Your task to perform on an android device: Open battery settings Image 0: 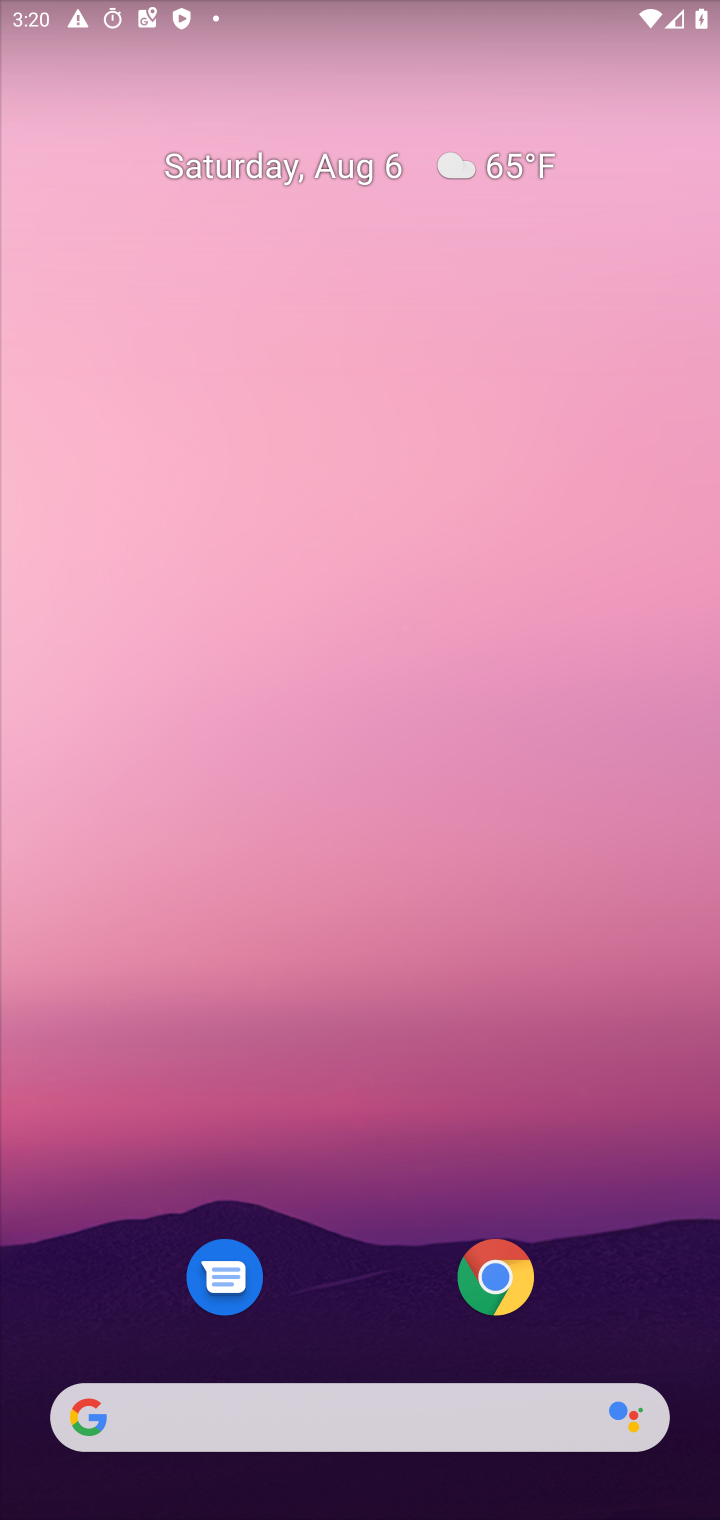
Step 0: drag from (575, 1385) to (377, 15)
Your task to perform on an android device: Open battery settings Image 1: 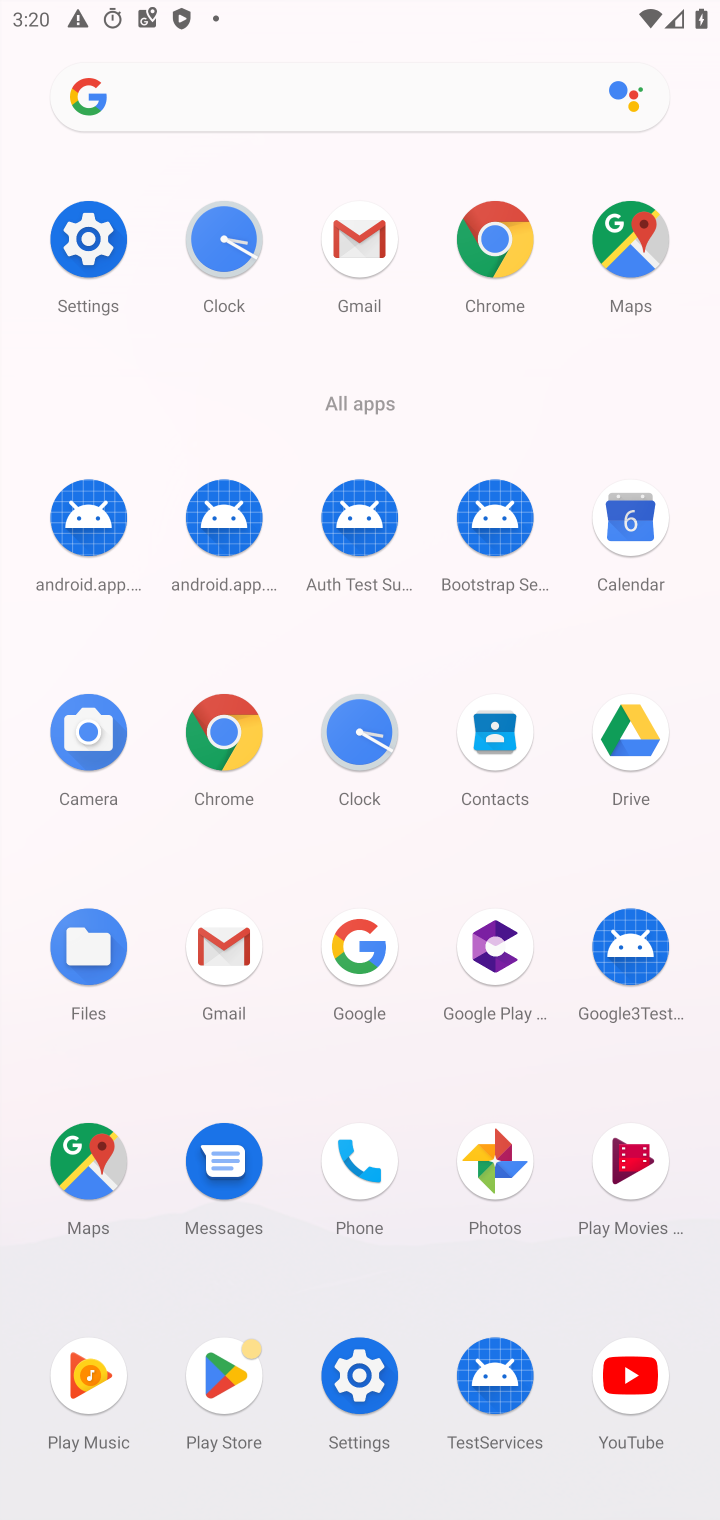
Step 1: click (337, 1370)
Your task to perform on an android device: Open battery settings Image 2: 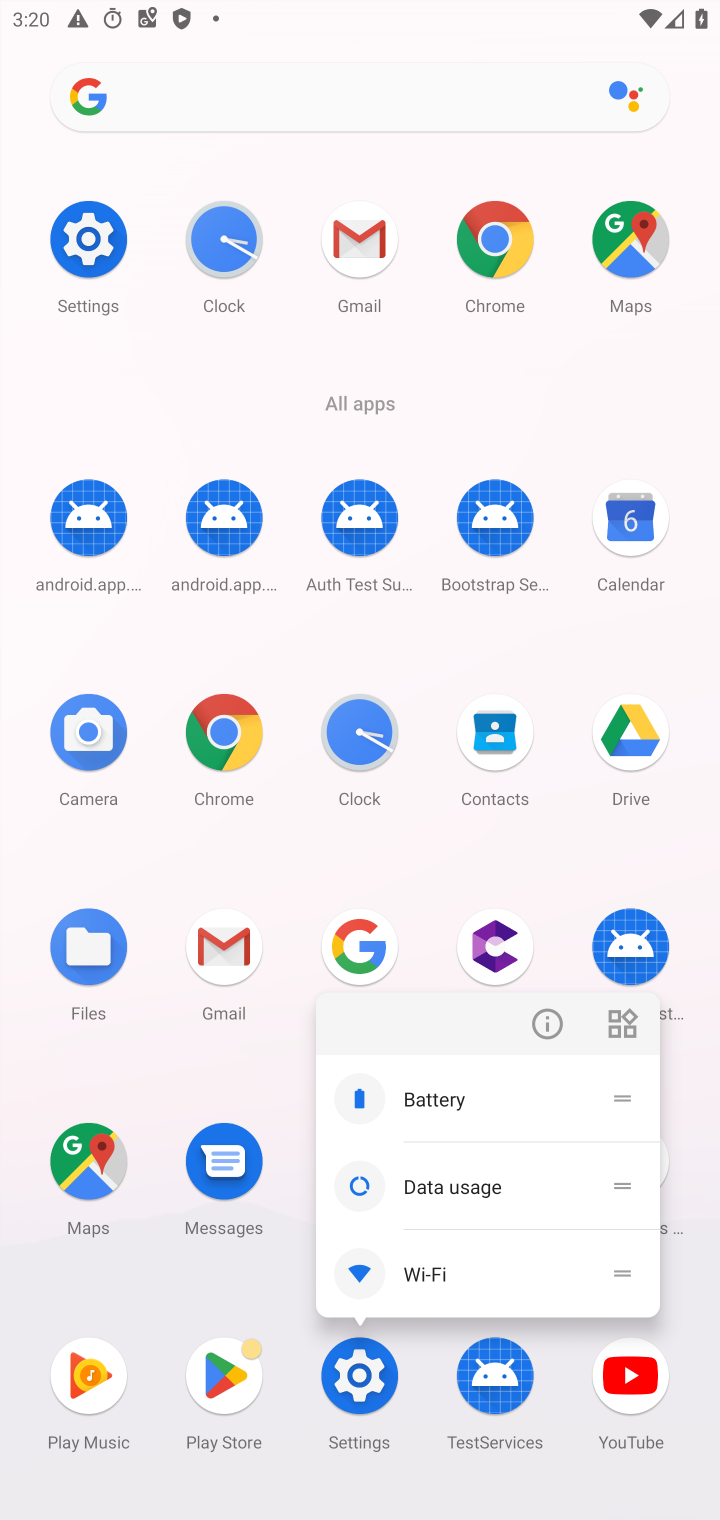
Step 2: click (337, 1370)
Your task to perform on an android device: Open battery settings Image 3: 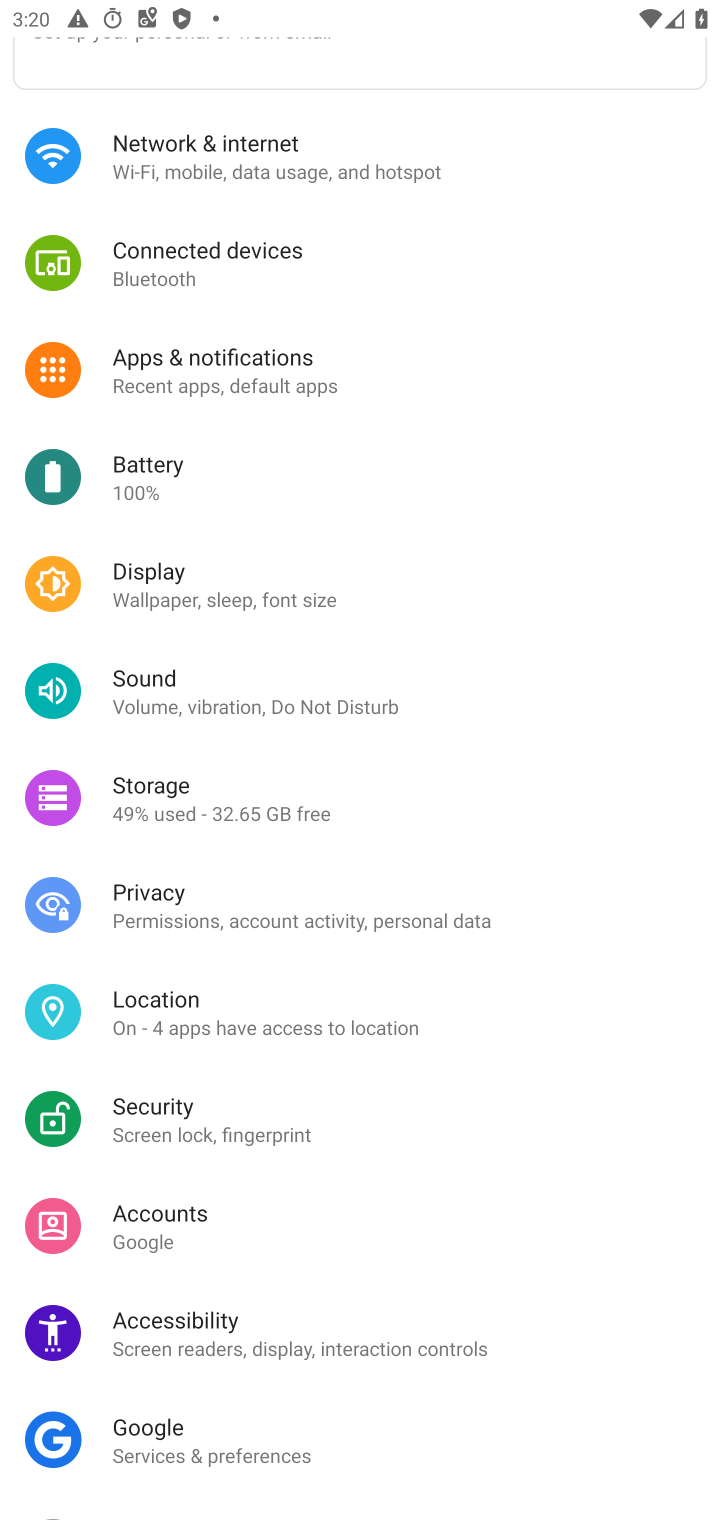
Step 3: click (169, 473)
Your task to perform on an android device: Open battery settings Image 4: 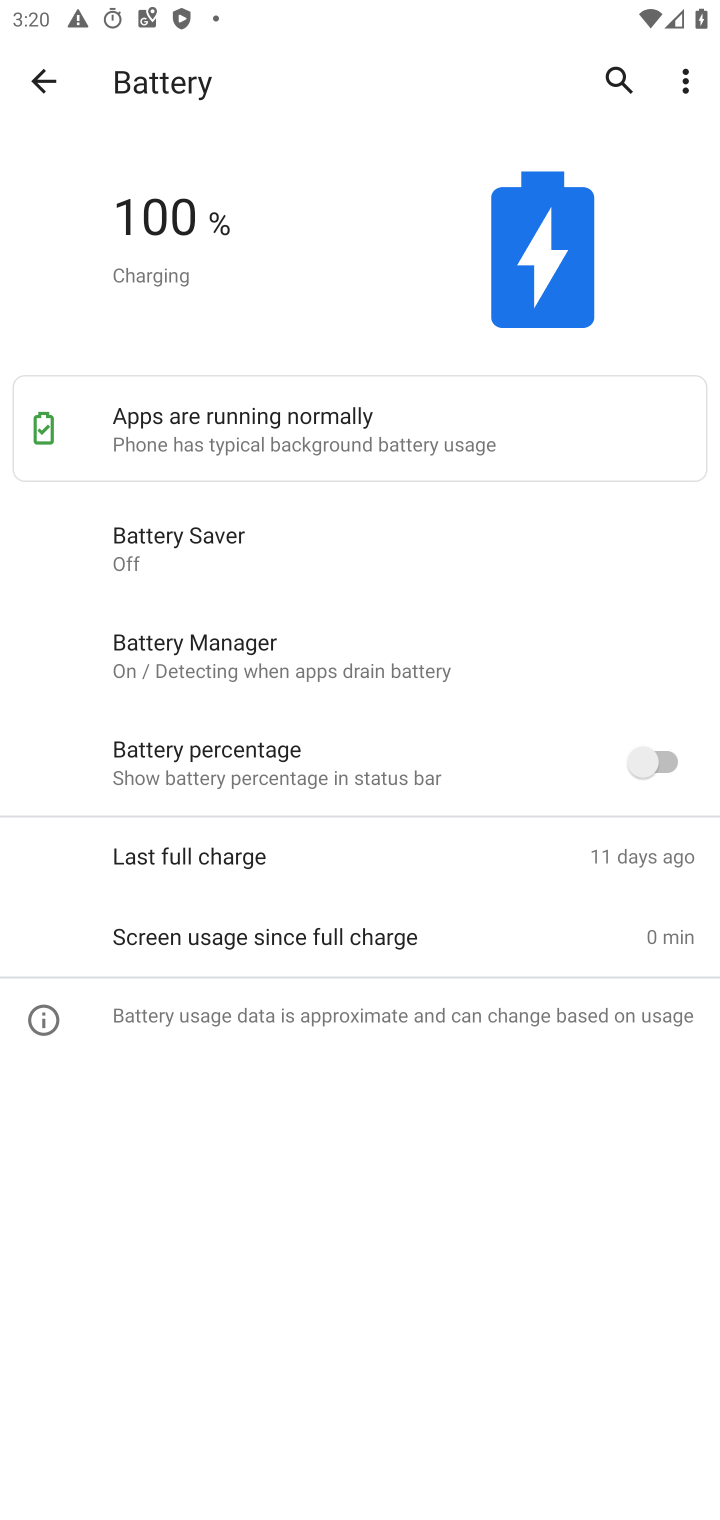
Step 4: task complete